Your task to perform on an android device: Open battery settings Image 0: 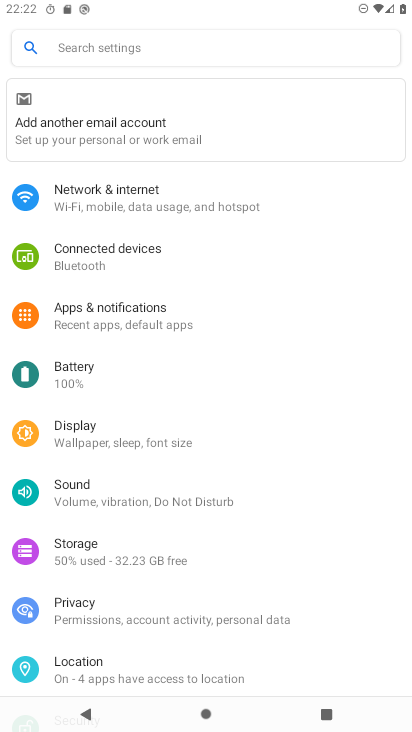
Step 0: click (69, 368)
Your task to perform on an android device: Open battery settings Image 1: 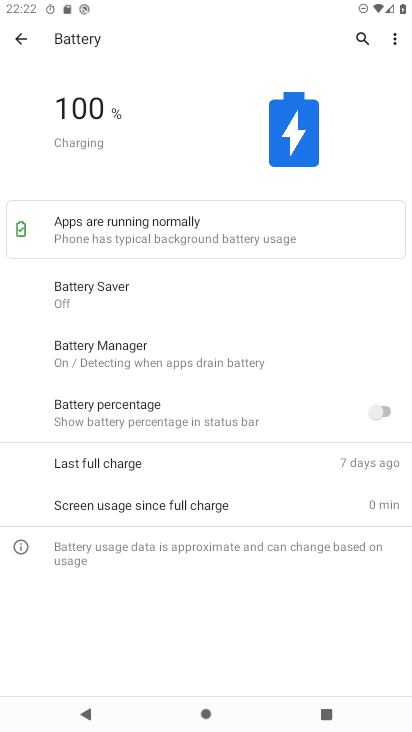
Step 1: task complete